Your task to perform on an android device: set default search engine in the chrome app Image 0: 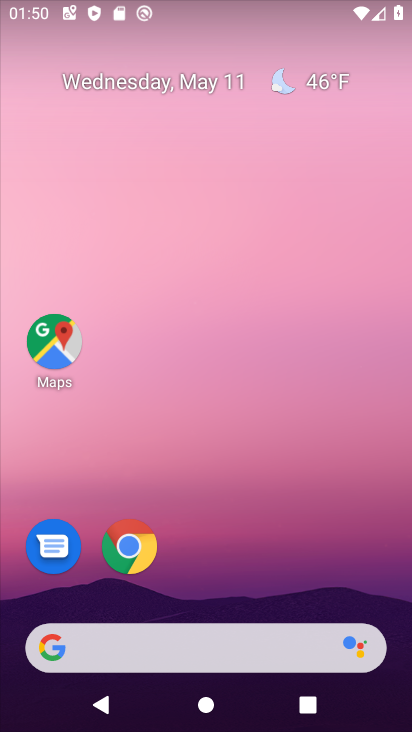
Step 0: drag from (157, 581) to (250, 260)
Your task to perform on an android device: set default search engine in the chrome app Image 1: 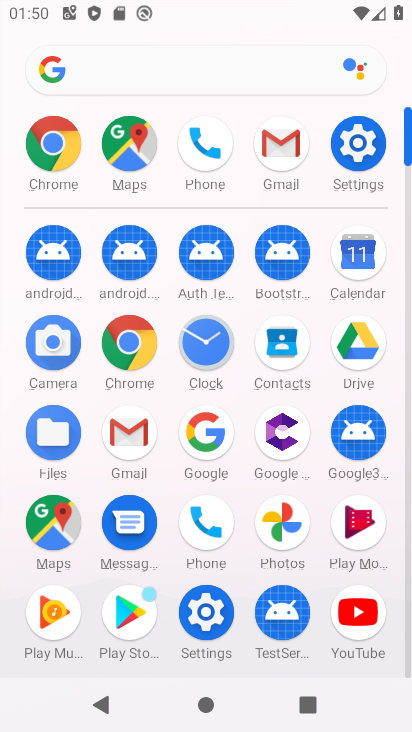
Step 1: click (129, 340)
Your task to perform on an android device: set default search engine in the chrome app Image 2: 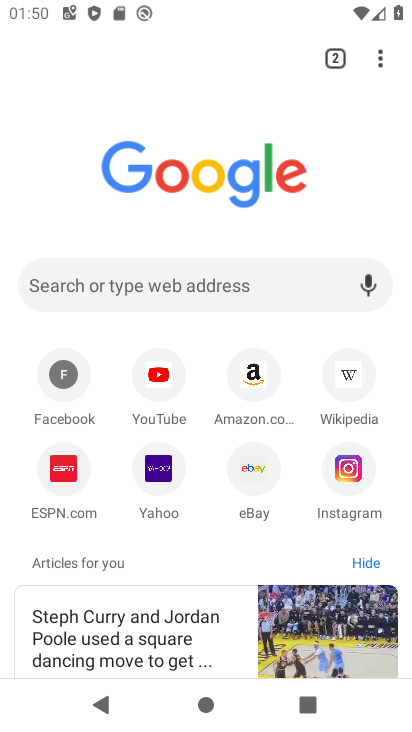
Step 2: drag from (383, 59) to (199, 496)
Your task to perform on an android device: set default search engine in the chrome app Image 3: 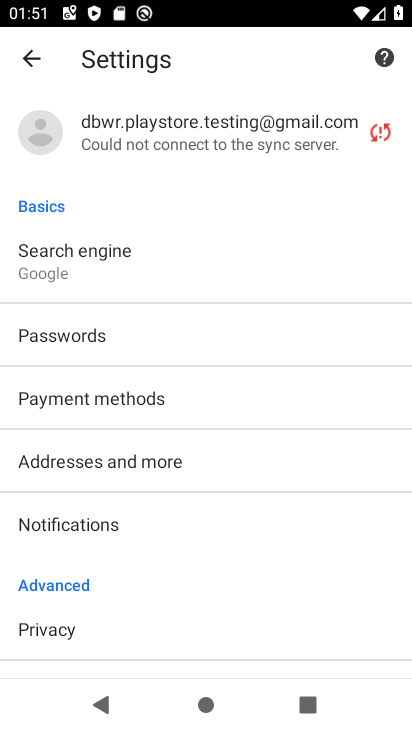
Step 3: drag from (187, 477) to (271, 145)
Your task to perform on an android device: set default search engine in the chrome app Image 4: 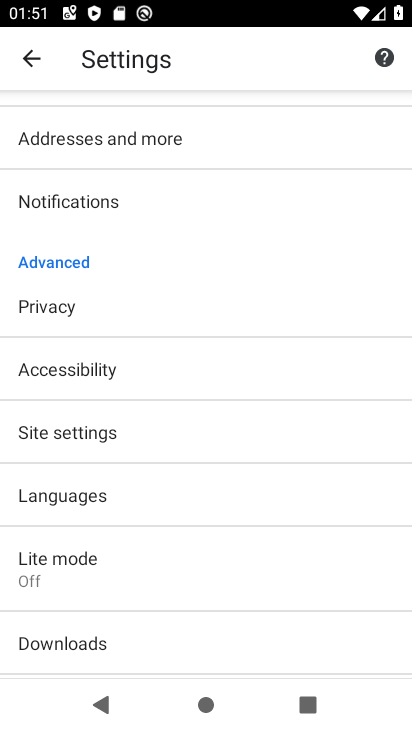
Step 4: drag from (176, 223) to (226, 688)
Your task to perform on an android device: set default search engine in the chrome app Image 5: 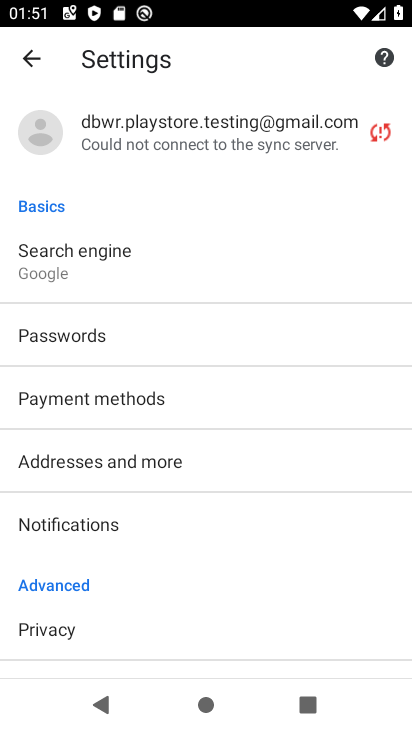
Step 5: click (104, 177)
Your task to perform on an android device: set default search engine in the chrome app Image 6: 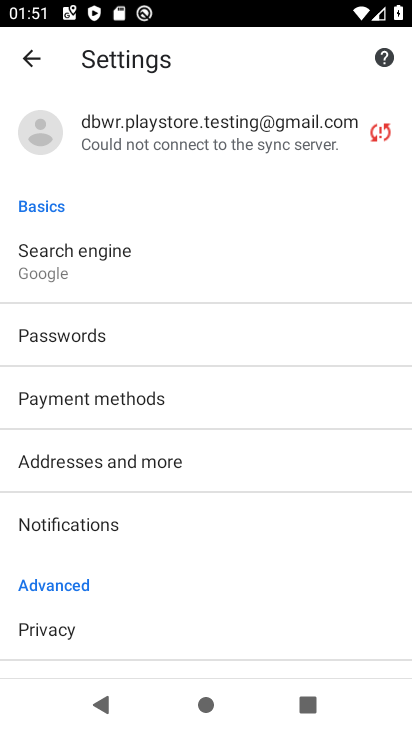
Step 6: click (134, 272)
Your task to perform on an android device: set default search engine in the chrome app Image 7: 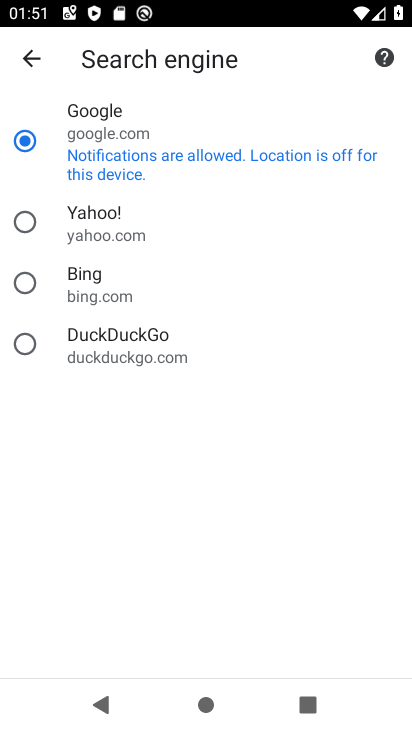
Step 7: click (161, 120)
Your task to perform on an android device: set default search engine in the chrome app Image 8: 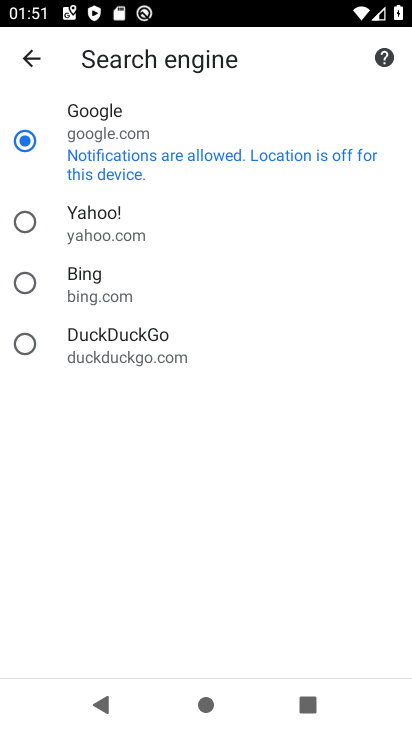
Step 8: task complete